Your task to perform on an android device: Show me popular games on the Play Store Image 0: 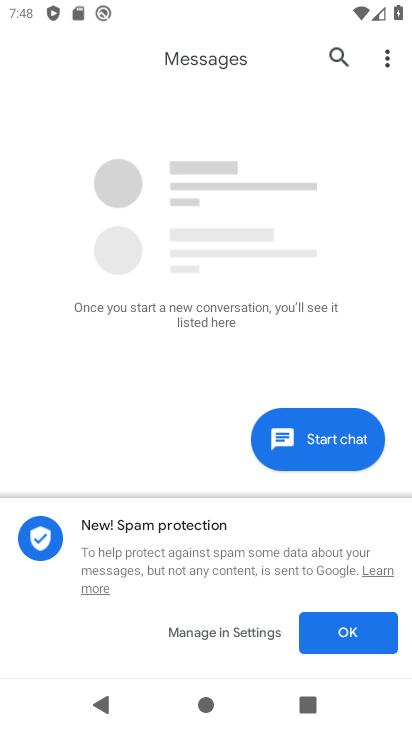
Step 0: press home button
Your task to perform on an android device: Show me popular games on the Play Store Image 1: 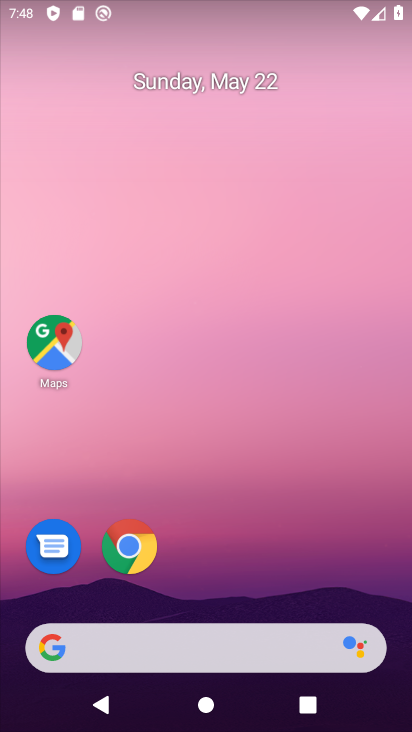
Step 1: drag from (161, 653) to (344, 117)
Your task to perform on an android device: Show me popular games on the Play Store Image 2: 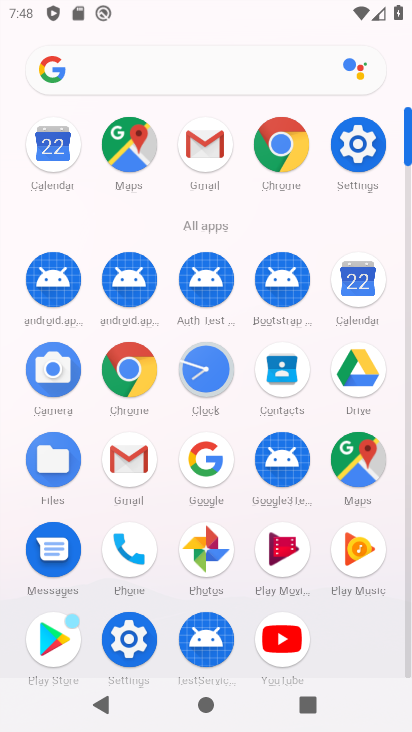
Step 2: click (54, 640)
Your task to perform on an android device: Show me popular games on the Play Store Image 3: 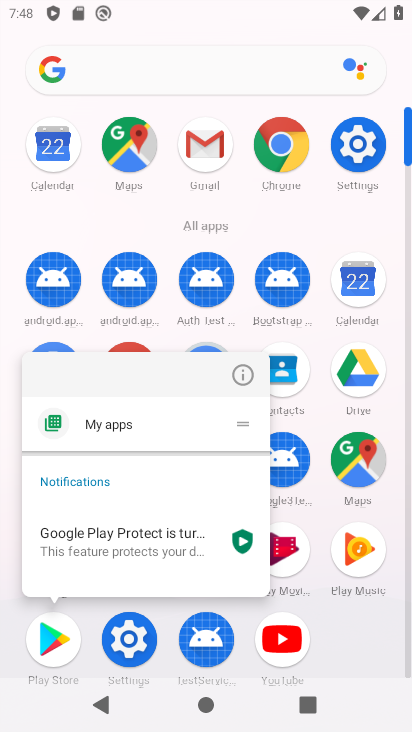
Step 3: click (62, 644)
Your task to perform on an android device: Show me popular games on the Play Store Image 4: 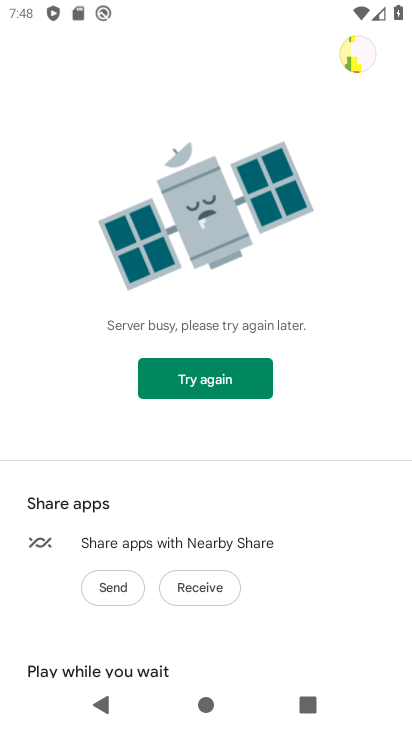
Step 4: task complete